Your task to perform on an android device: turn off picture-in-picture Image 0: 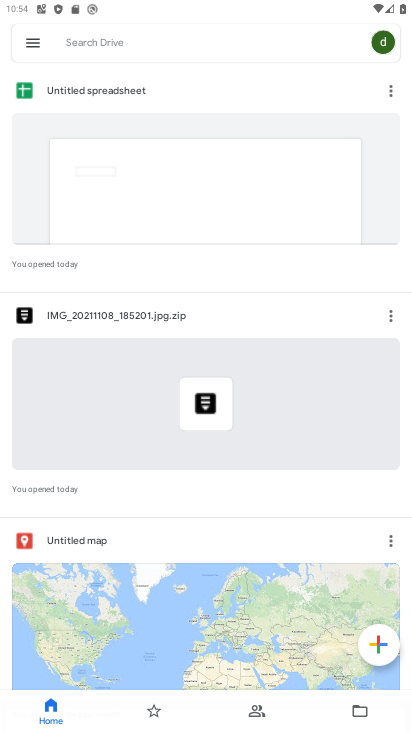
Step 0: press home button
Your task to perform on an android device: turn off picture-in-picture Image 1: 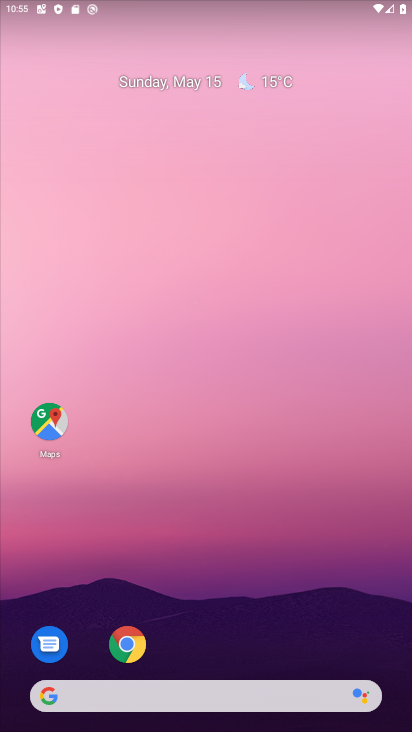
Step 1: click (117, 645)
Your task to perform on an android device: turn off picture-in-picture Image 2: 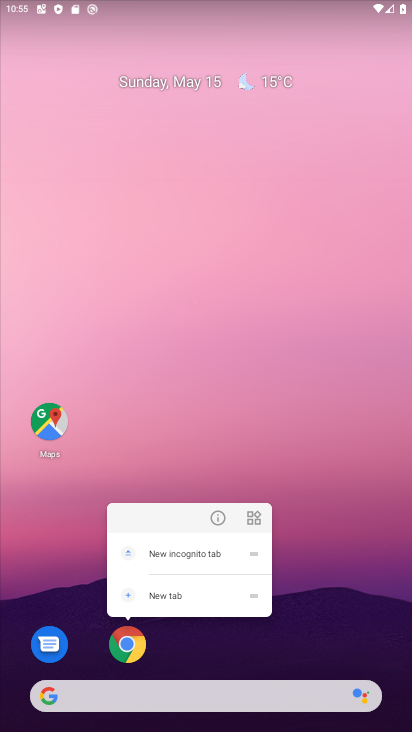
Step 2: click (211, 520)
Your task to perform on an android device: turn off picture-in-picture Image 3: 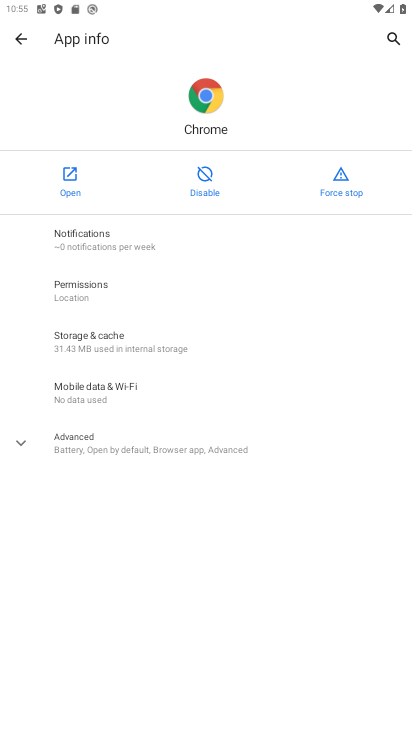
Step 3: click (99, 437)
Your task to perform on an android device: turn off picture-in-picture Image 4: 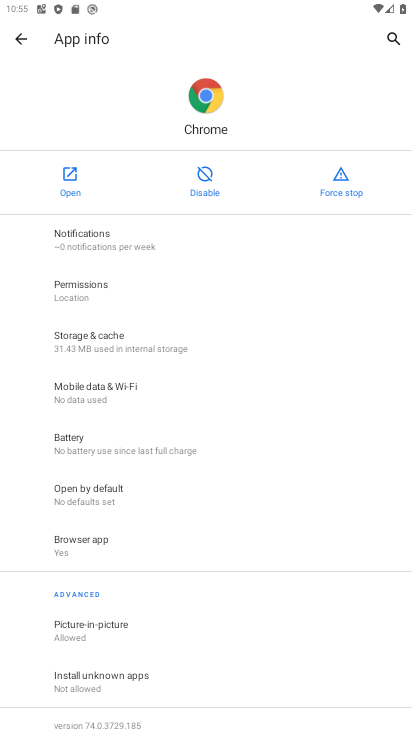
Step 4: click (125, 632)
Your task to perform on an android device: turn off picture-in-picture Image 5: 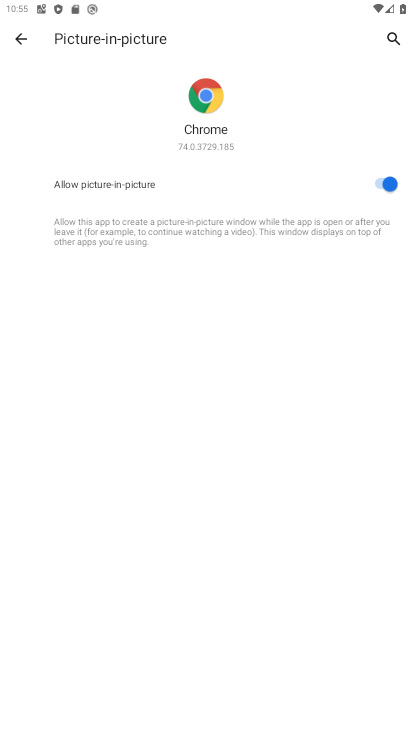
Step 5: click (379, 185)
Your task to perform on an android device: turn off picture-in-picture Image 6: 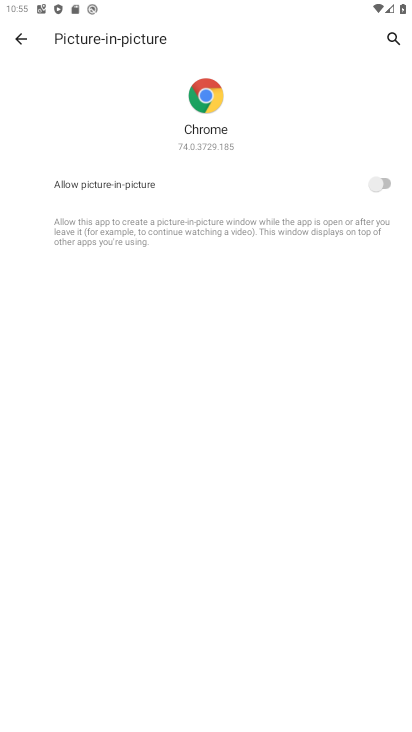
Step 6: task complete